Your task to perform on an android device: Search for vegetarian restaurants on Maps Image 0: 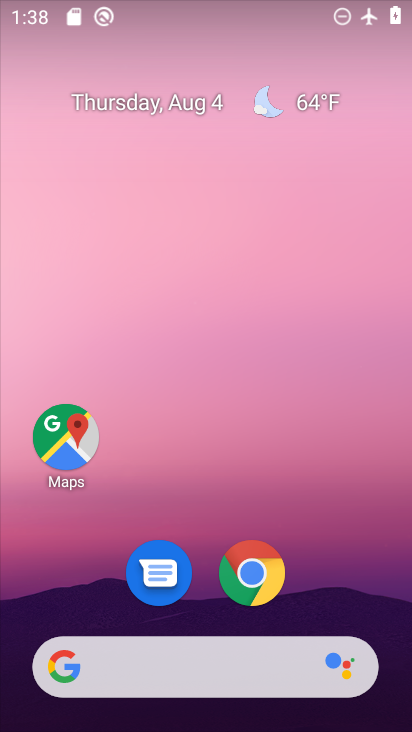
Step 0: drag from (369, 543) to (243, 51)
Your task to perform on an android device: Search for vegetarian restaurants on Maps Image 1: 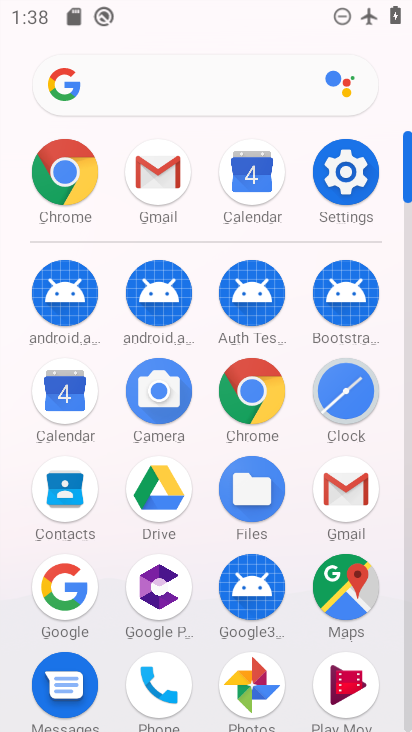
Step 1: click (362, 581)
Your task to perform on an android device: Search for vegetarian restaurants on Maps Image 2: 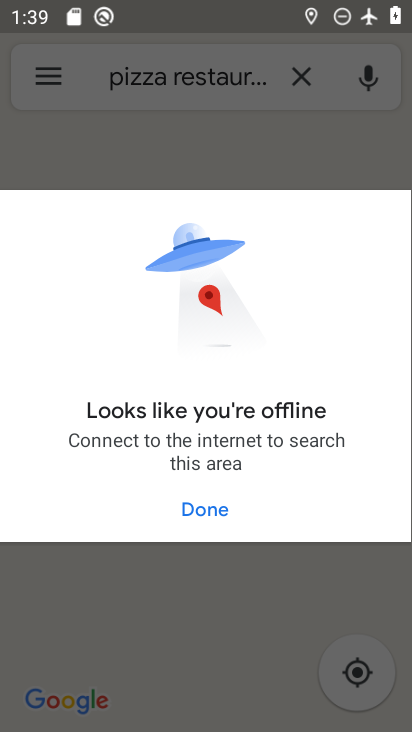
Step 2: click (200, 508)
Your task to perform on an android device: Search for vegetarian restaurants on Maps Image 3: 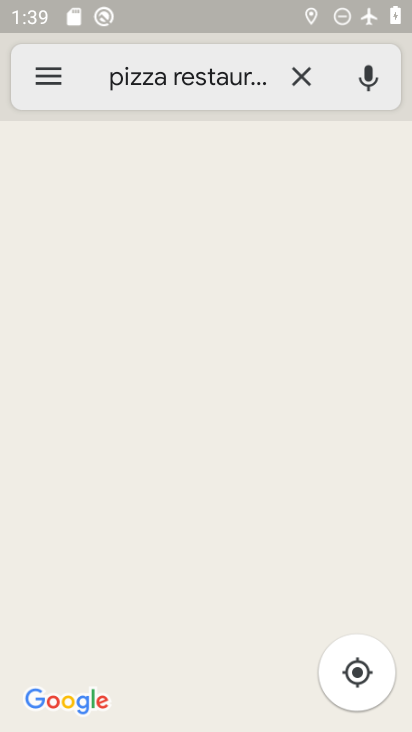
Step 3: click (228, 55)
Your task to perform on an android device: Search for vegetarian restaurants on Maps Image 4: 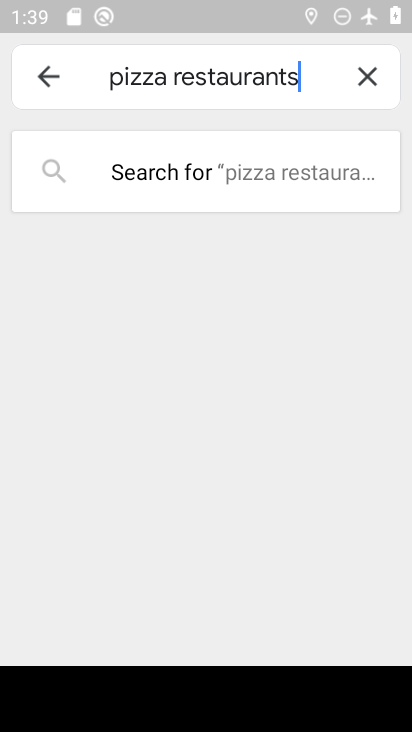
Step 4: click (353, 81)
Your task to perform on an android device: Search for vegetarian restaurants on Maps Image 5: 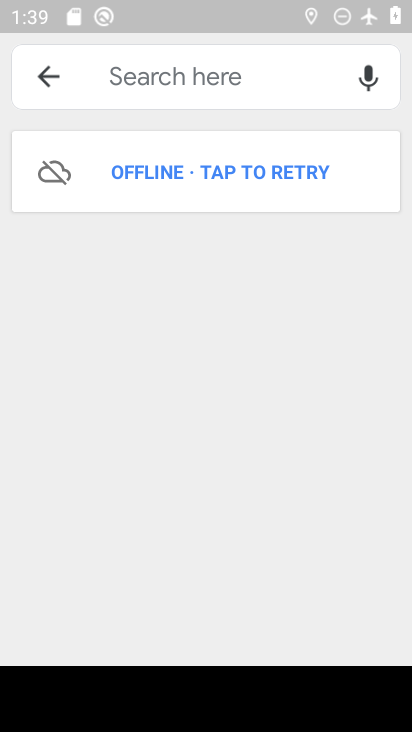
Step 5: type "vegetarian restaurants"
Your task to perform on an android device: Search for vegetarian restaurants on Maps Image 6: 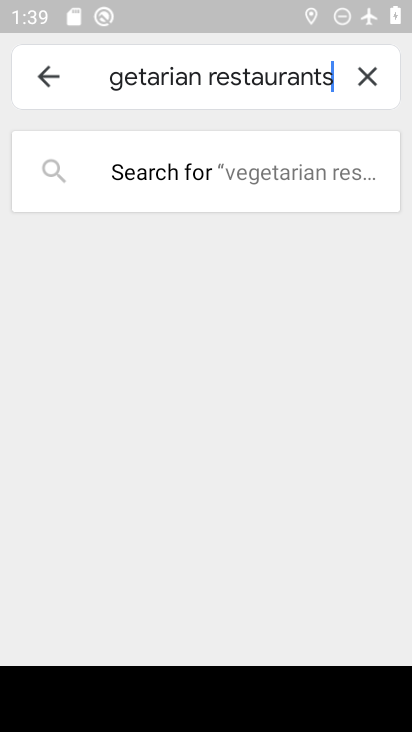
Step 6: press enter
Your task to perform on an android device: Search for vegetarian restaurants on Maps Image 7: 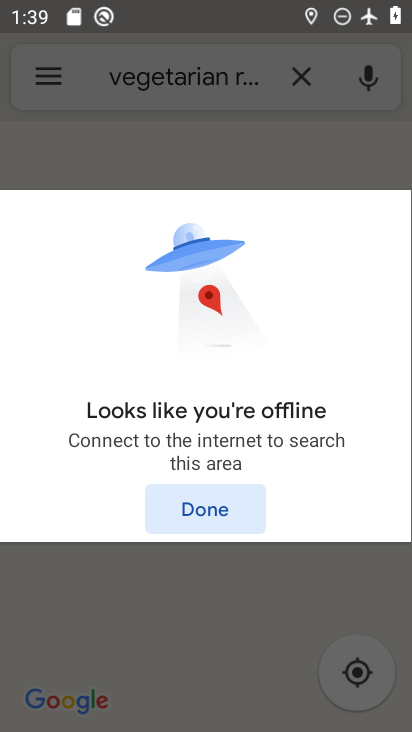
Step 7: task complete